Your task to perform on an android device: Open the web browser Image 0: 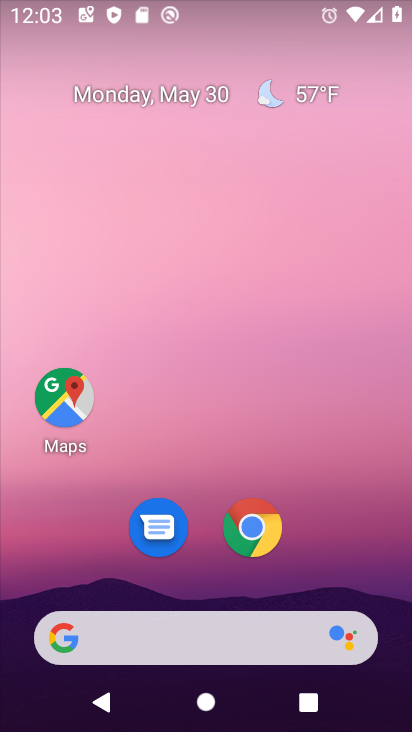
Step 0: click (220, 627)
Your task to perform on an android device: Open the web browser Image 1: 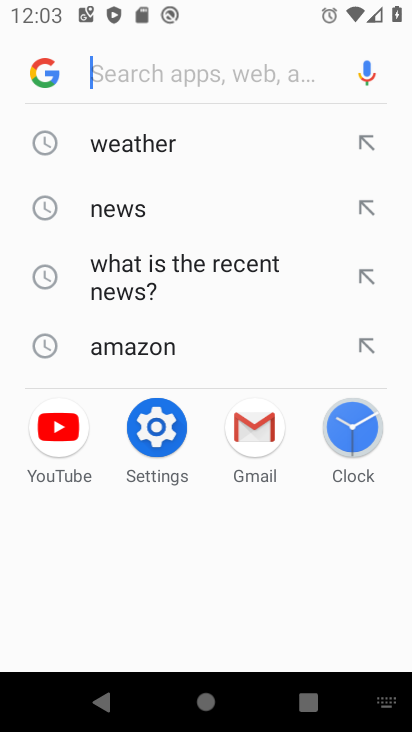
Step 1: task complete